Your task to perform on an android device: When is my next meeting? Image 0: 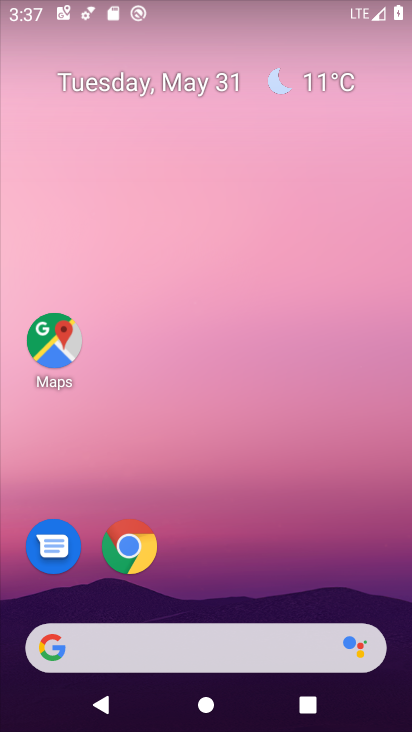
Step 0: drag from (271, 545) to (180, 4)
Your task to perform on an android device: When is my next meeting? Image 1: 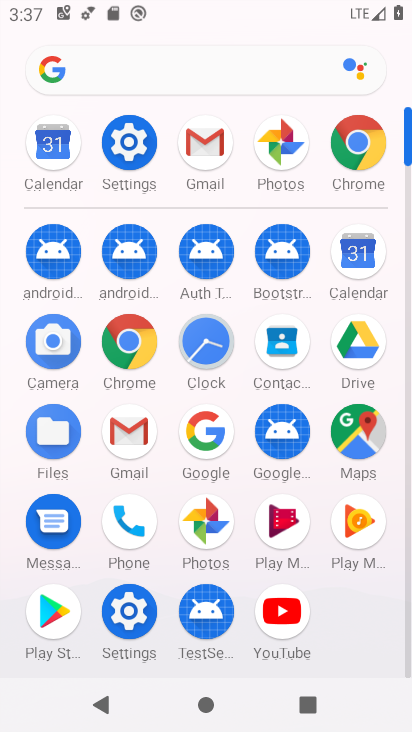
Step 1: click (344, 270)
Your task to perform on an android device: When is my next meeting? Image 2: 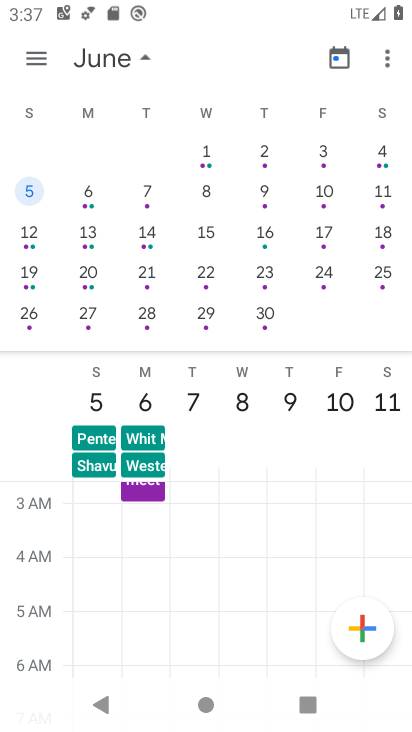
Step 2: task complete